Your task to perform on an android device: turn on airplane mode Image 0: 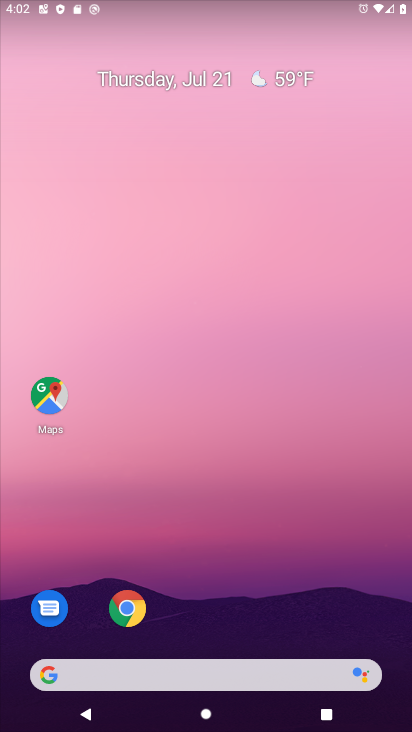
Step 0: drag from (138, 541) to (180, 25)
Your task to perform on an android device: turn on airplane mode Image 1: 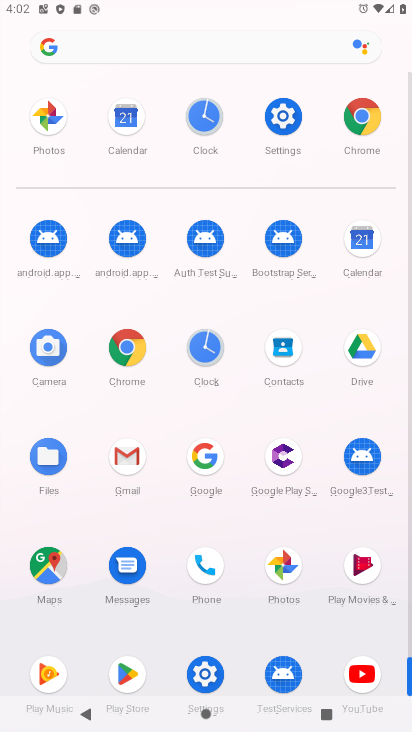
Step 1: click (281, 117)
Your task to perform on an android device: turn on airplane mode Image 2: 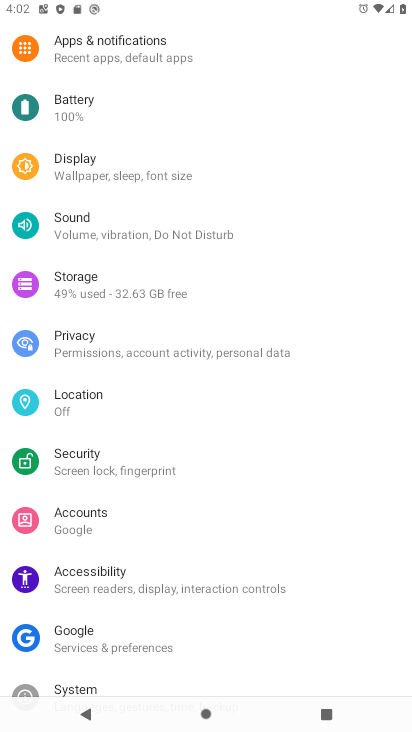
Step 2: drag from (141, 78) to (173, 501)
Your task to perform on an android device: turn on airplane mode Image 3: 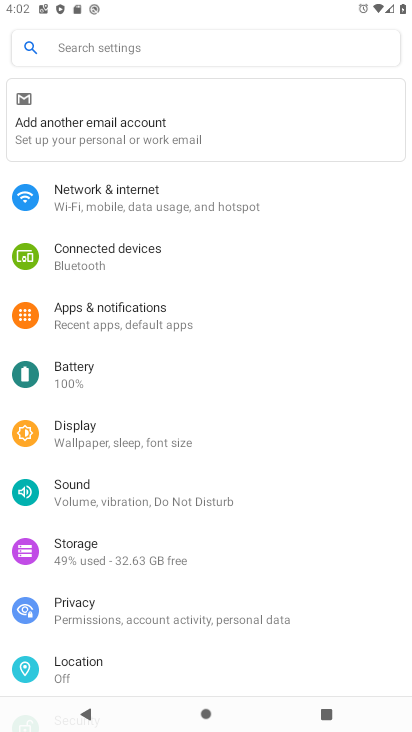
Step 3: click (187, 209)
Your task to perform on an android device: turn on airplane mode Image 4: 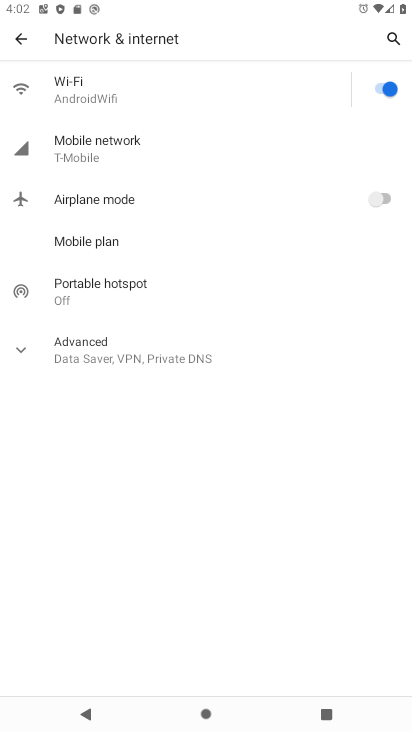
Step 4: click (388, 197)
Your task to perform on an android device: turn on airplane mode Image 5: 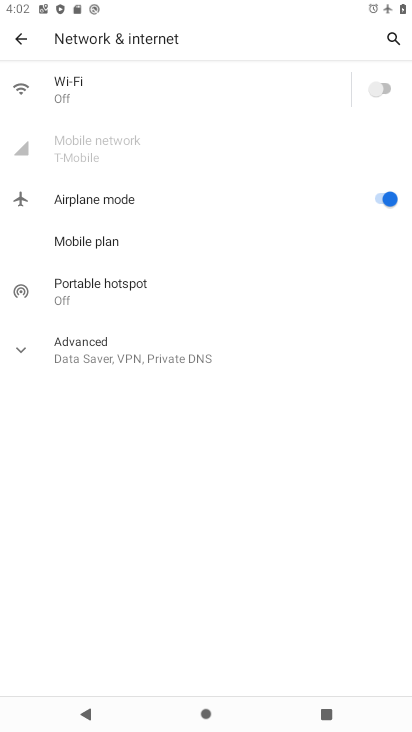
Step 5: task complete